Your task to perform on an android device: Check the news Image 0: 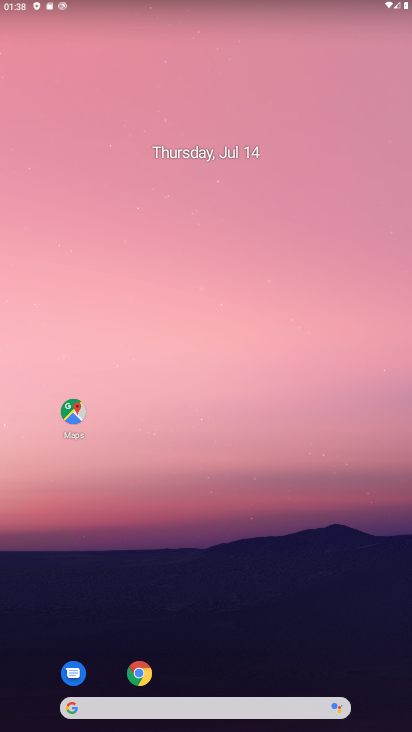
Step 0: drag from (239, 677) to (194, 6)
Your task to perform on an android device: Check the news Image 1: 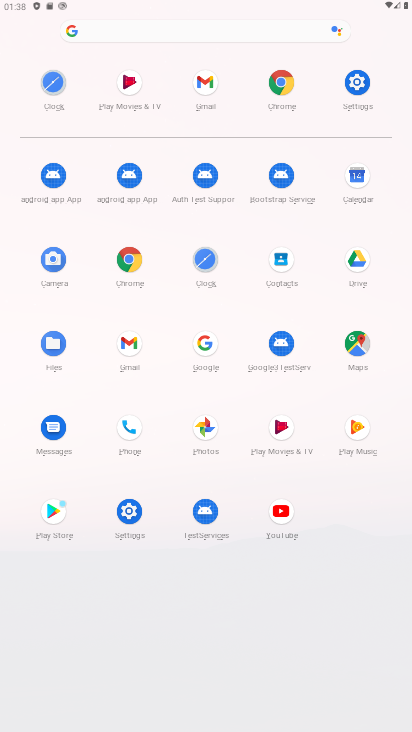
Step 1: click (192, 22)
Your task to perform on an android device: Check the news Image 2: 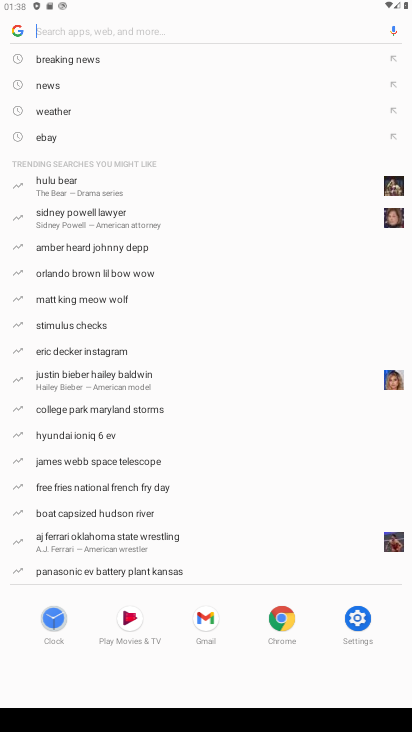
Step 2: click (73, 59)
Your task to perform on an android device: Check the news Image 3: 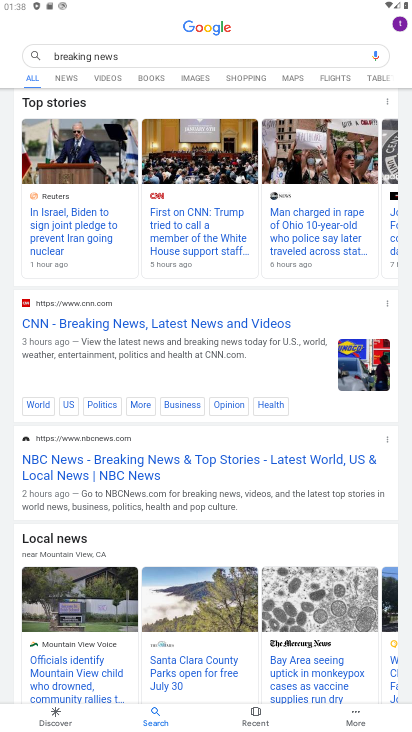
Step 3: task complete